Your task to perform on an android device: Search for seafood restaurants on Google Maps Image 0: 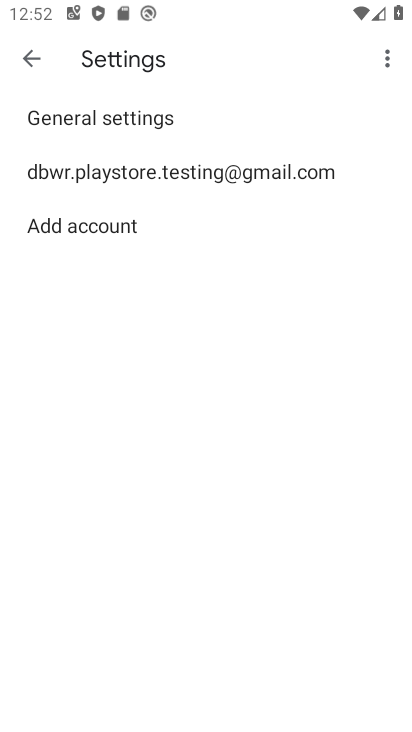
Step 0: press home button
Your task to perform on an android device: Search for seafood restaurants on Google Maps Image 1: 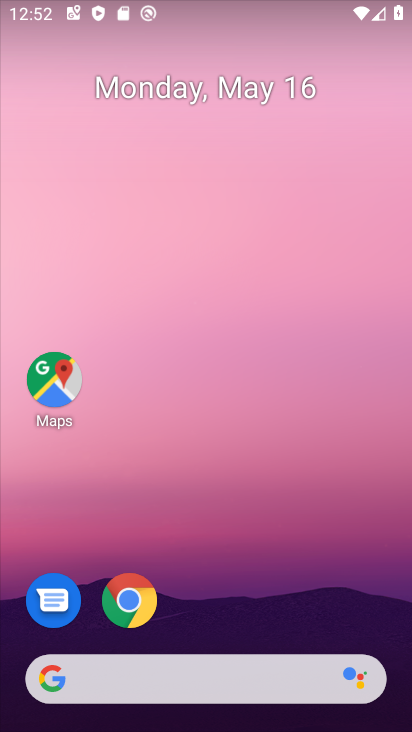
Step 1: click (62, 377)
Your task to perform on an android device: Search for seafood restaurants on Google Maps Image 2: 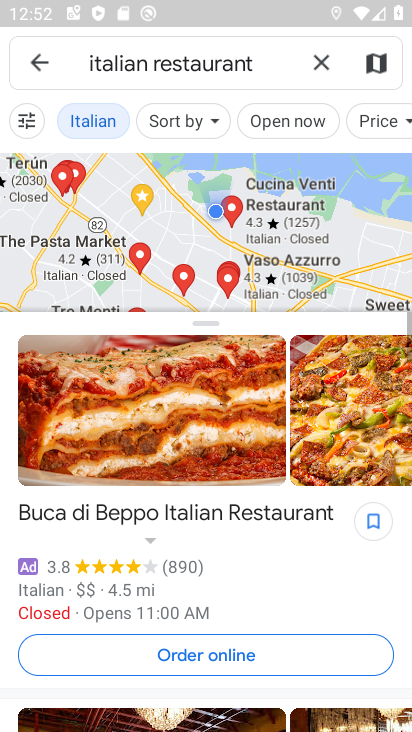
Step 2: click (320, 61)
Your task to perform on an android device: Search for seafood restaurants on Google Maps Image 3: 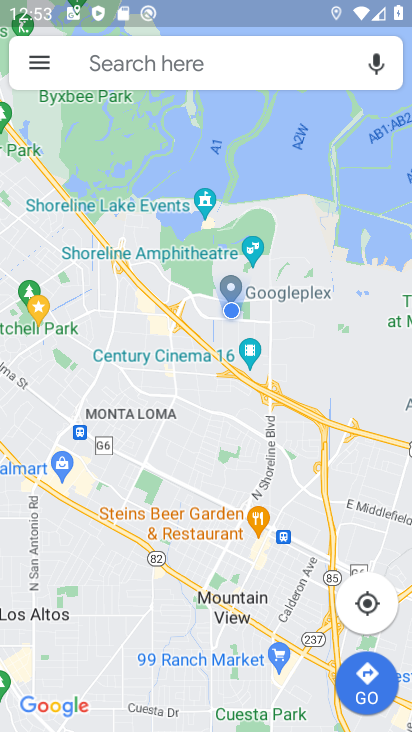
Step 3: click (229, 51)
Your task to perform on an android device: Search for seafood restaurants on Google Maps Image 4: 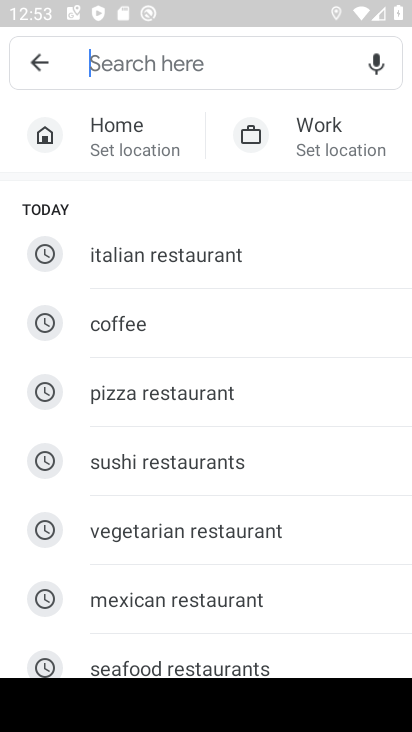
Step 4: click (175, 668)
Your task to perform on an android device: Search for seafood restaurants on Google Maps Image 5: 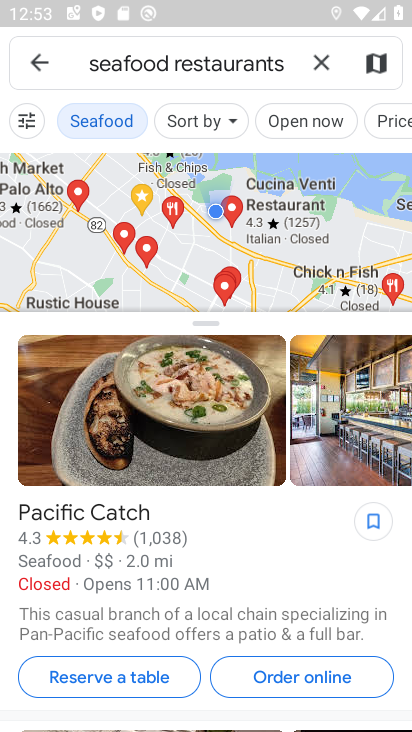
Step 5: task complete